Your task to perform on an android device: Check the weather Image 0: 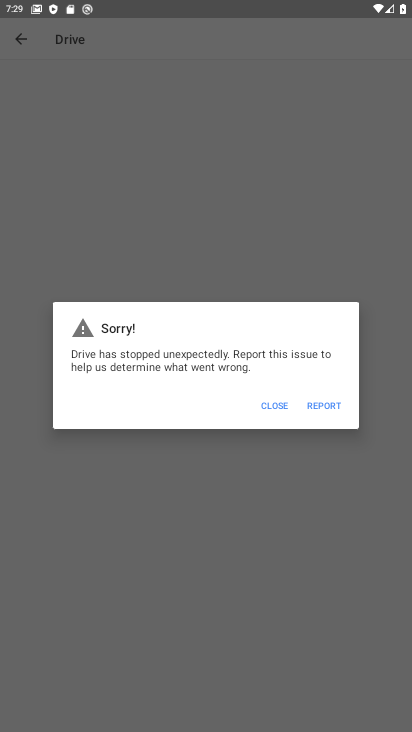
Step 0: press home button
Your task to perform on an android device: Check the weather Image 1: 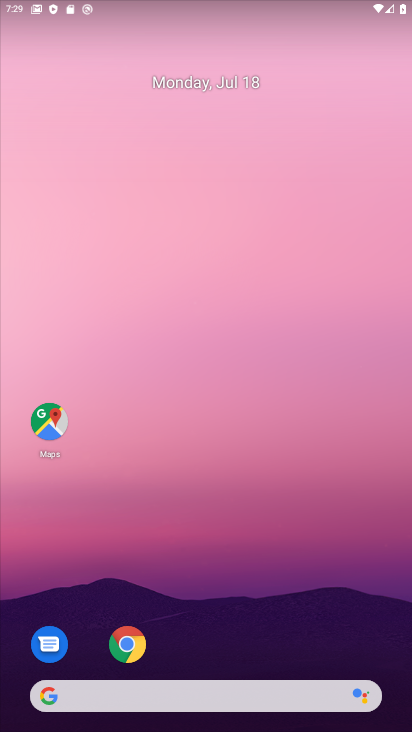
Step 1: click (142, 695)
Your task to perform on an android device: Check the weather Image 2: 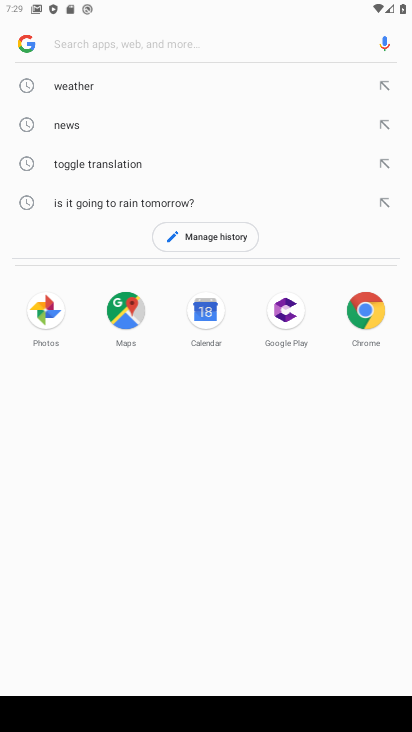
Step 2: click (89, 90)
Your task to perform on an android device: Check the weather Image 3: 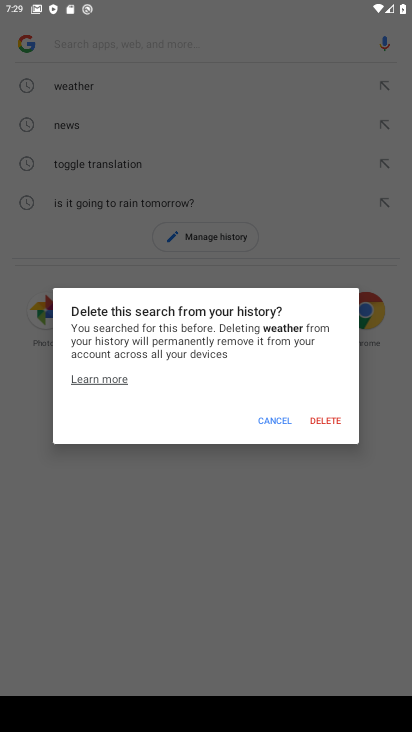
Step 3: click (204, 517)
Your task to perform on an android device: Check the weather Image 4: 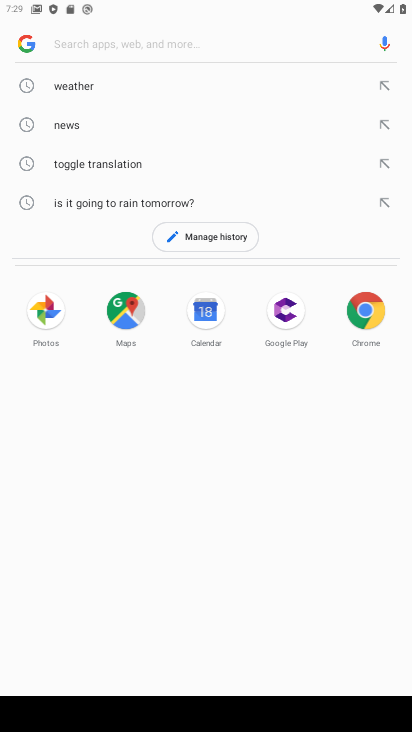
Step 4: click (92, 87)
Your task to perform on an android device: Check the weather Image 5: 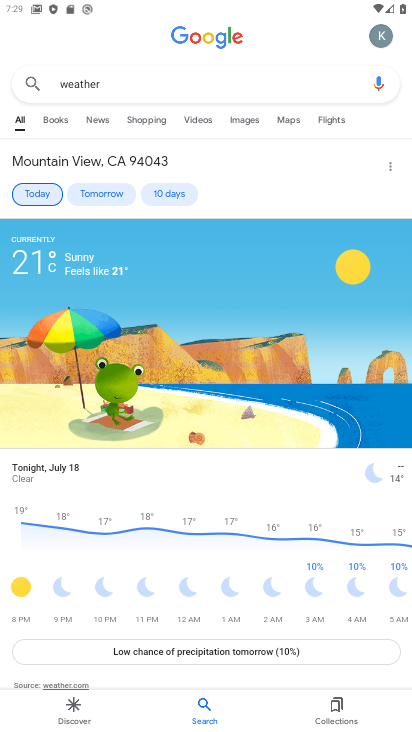
Step 5: task complete